Your task to perform on an android device: all mails in gmail Image 0: 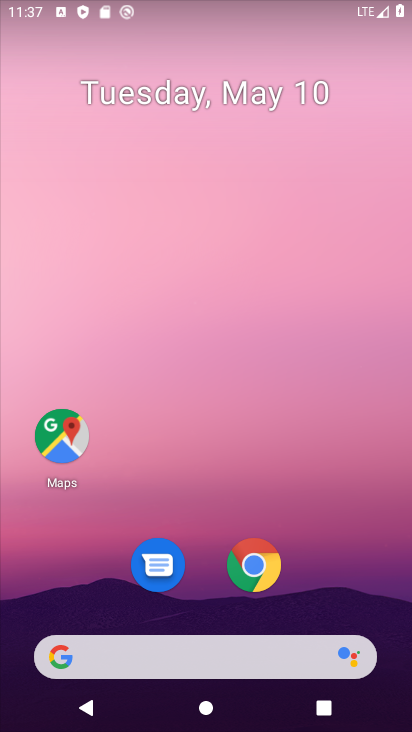
Step 0: press home button
Your task to perform on an android device: all mails in gmail Image 1: 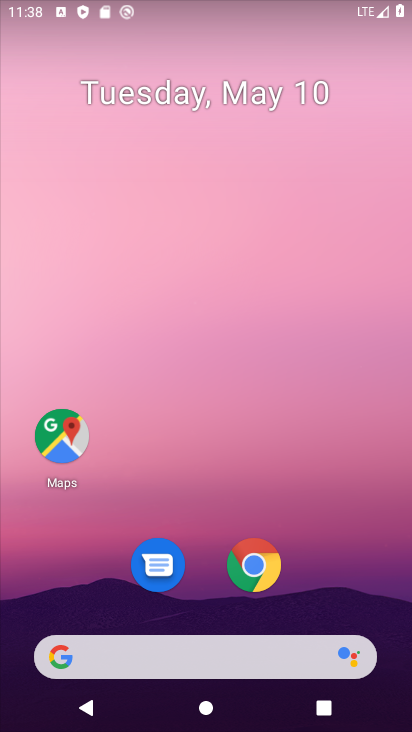
Step 1: drag from (200, 417) to (341, 108)
Your task to perform on an android device: all mails in gmail Image 2: 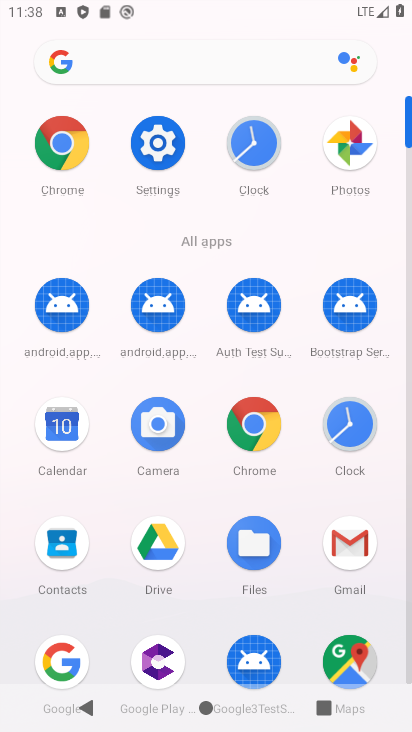
Step 2: click (334, 552)
Your task to perform on an android device: all mails in gmail Image 3: 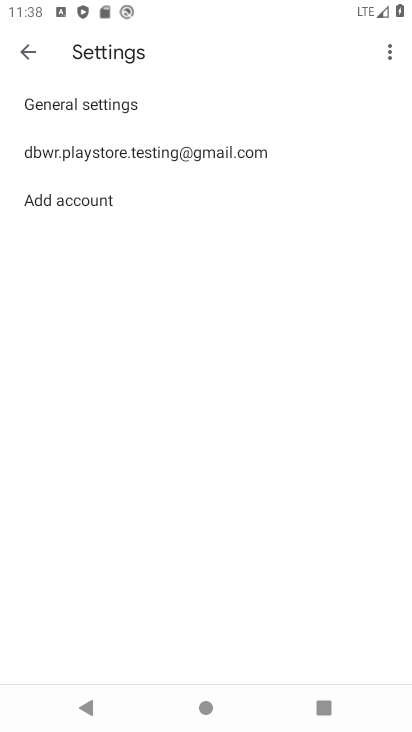
Step 3: click (149, 143)
Your task to perform on an android device: all mails in gmail Image 4: 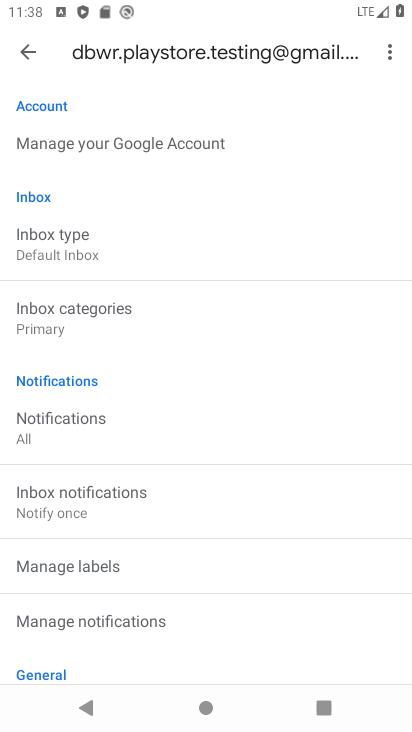
Step 4: press back button
Your task to perform on an android device: all mails in gmail Image 5: 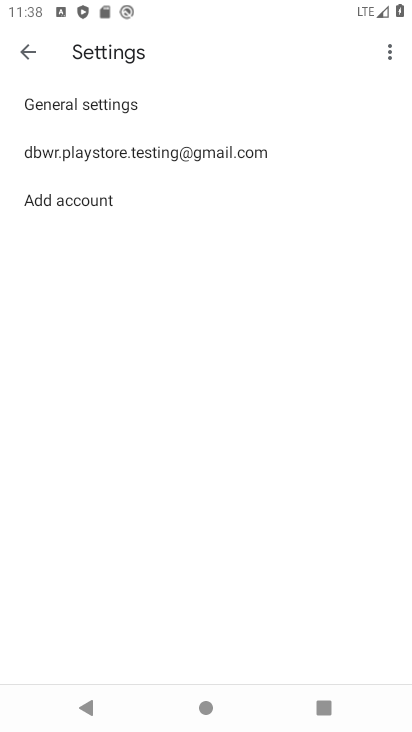
Step 5: press back button
Your task to perform on an android device: all mails in gmail Image 6: 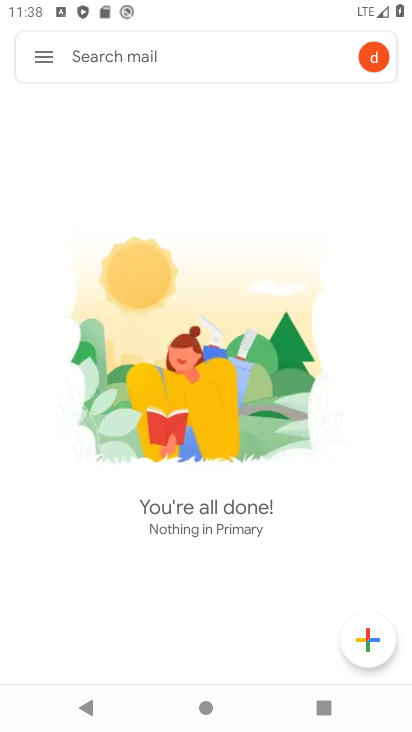
Step 6: click (42, 47)
Your task to perform on an android device: all mails in gmail Image 7: 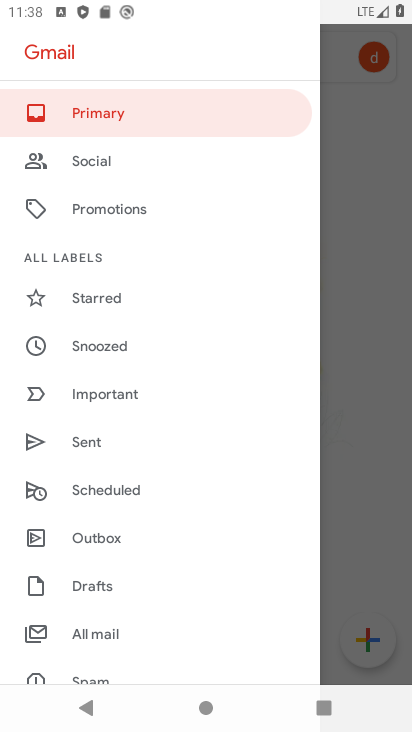
Step 7: click (125, 623)
Your task to perform on an android device: all mails in gmail Image 8: 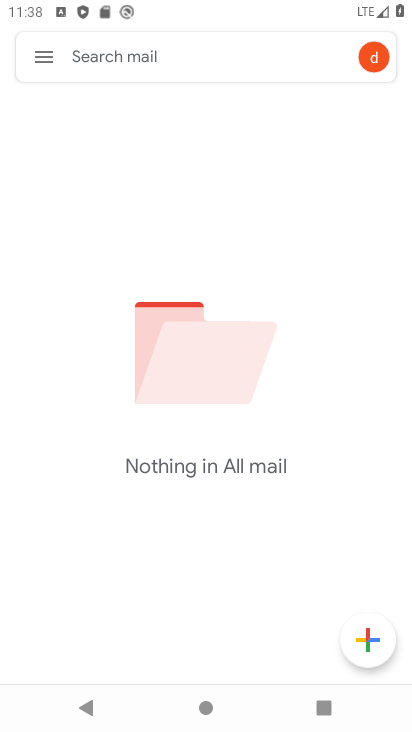
Step 8: task complete